Your task to perform on an android device: turn off smart reply in the gmail app Image 0: 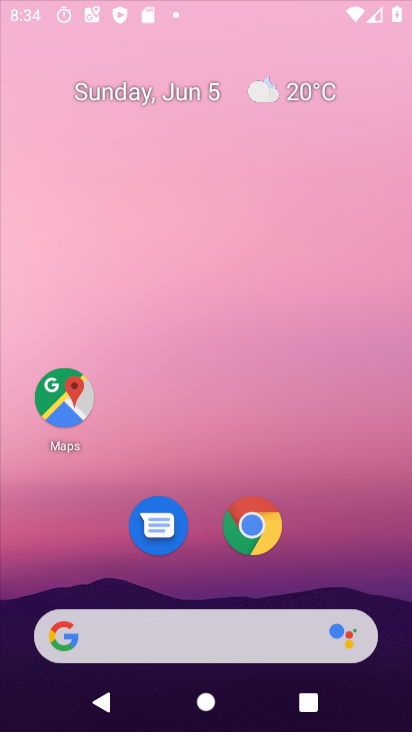
Step 0: drag from (373, 469) to (401, 0)
Your task to perform on an android device: turn off smart reply in the gmail app Image 1: 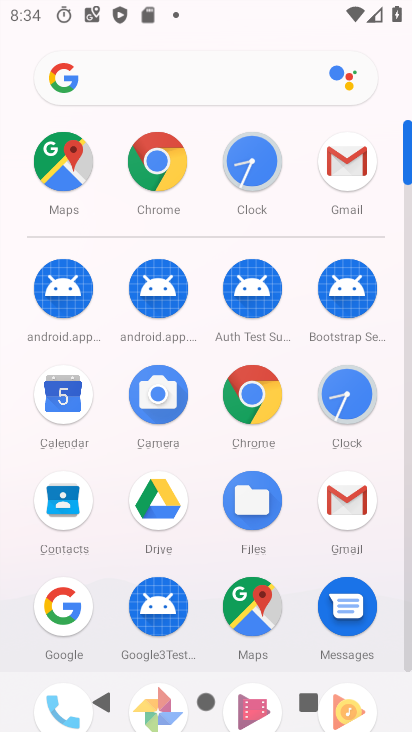
Step 1: click (374, 507)
Your task to perform on an android device: turn off smart reply in the gmail app Image 2: 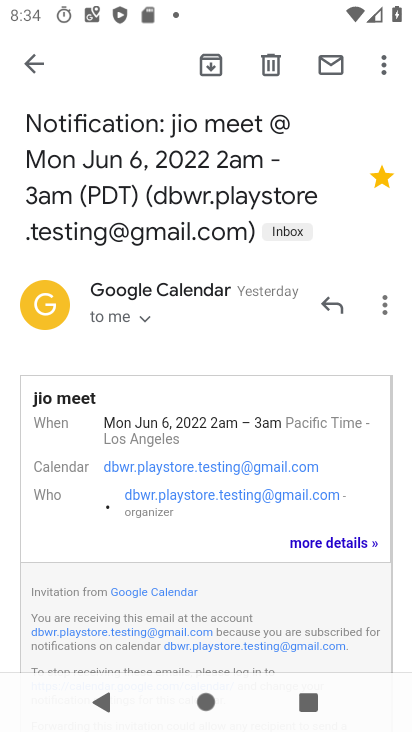
Step 2: click (49, 65)
Your task to perform on an android device: turn off smart reply in the gmail app Image 3: 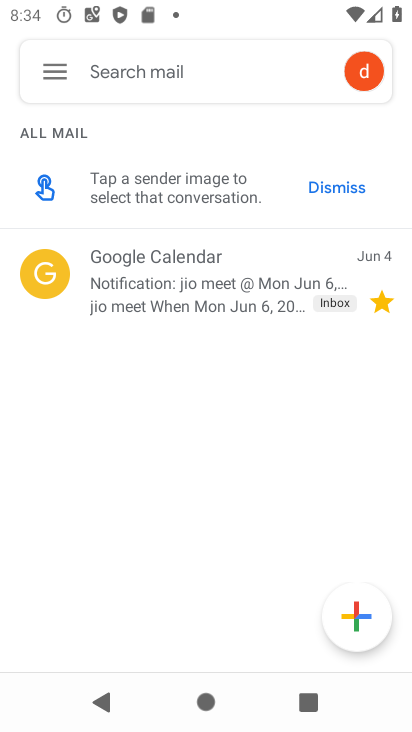
Step 3: click (53, 83)
Your task to perform on an android device: turn off smart reply in the gmail app Image 4: 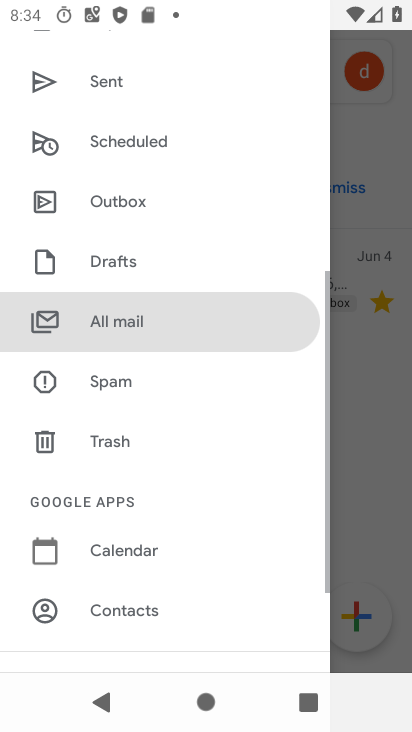
Step 4: drag from (150, 615) to (117, 3)
Your task to perform on an android device: turn off smart reply in the gmail app Image 5: 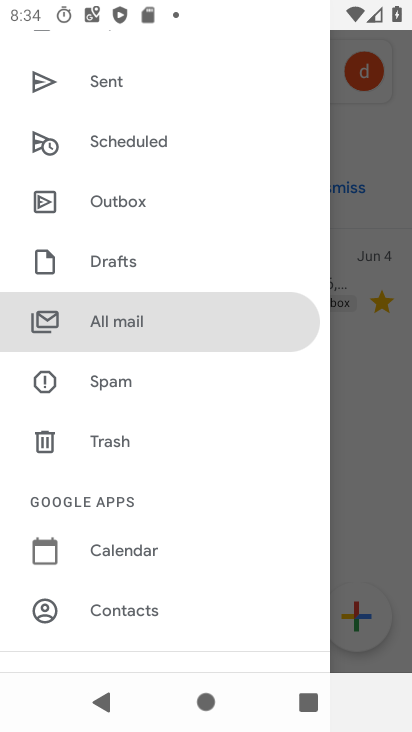
Step 5: drag from (144, 549) to (165, 22)
Your task to perform on an android device: turn off smart reply in the gmail app Image 6: 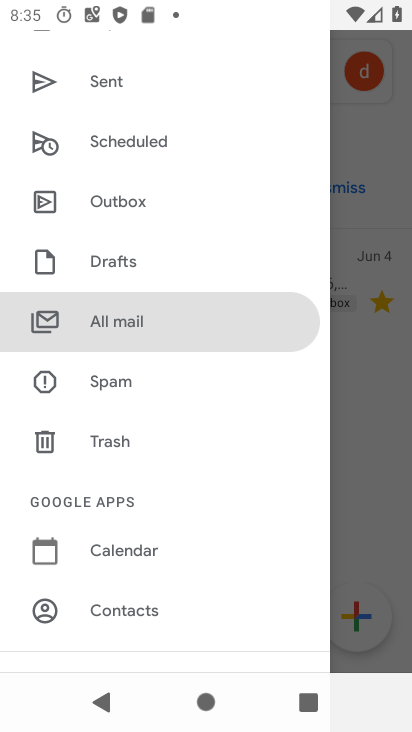
Step 6: drag from (136, 481) to (150, 14)
Your task to perform on an android device: turn off smart reply in the gmail app Image 7: 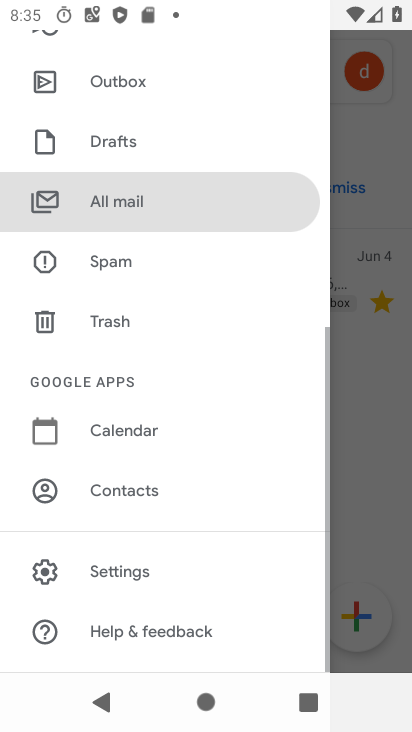
Step 7: click (124, 601)
Your task to perform on an android device: turn off smart reply in the gmail app Image 8: 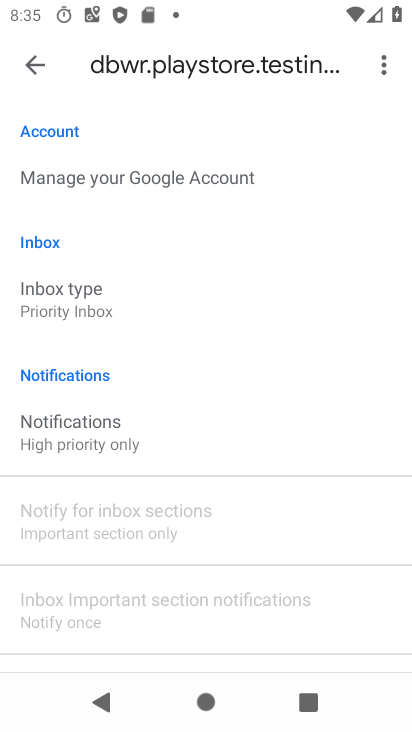
Step 8: drag from (90, 424) to (166, 52)
Your task to perform on an android device: turn off smart reply in the gmail app Image 9: 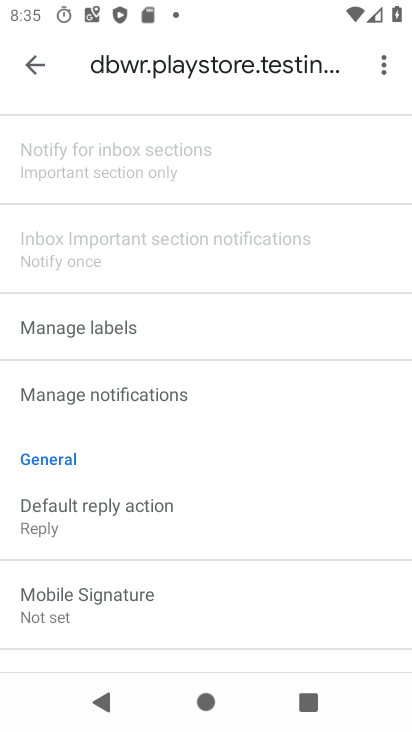
Step 9: drag from (138, 559) to (190, 63)
Your task to perform on an android device: turn off smart reply in the gmail app Image 10: 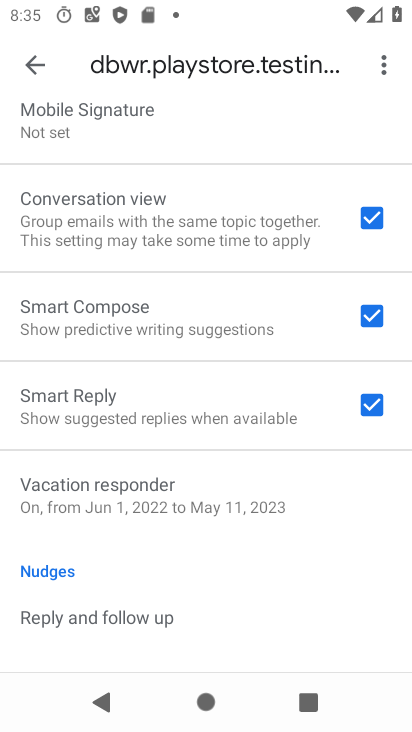
Step 10: click (371, 408)
Your task to perform on an android device: turn off smart reply in the gmail app Image 11: 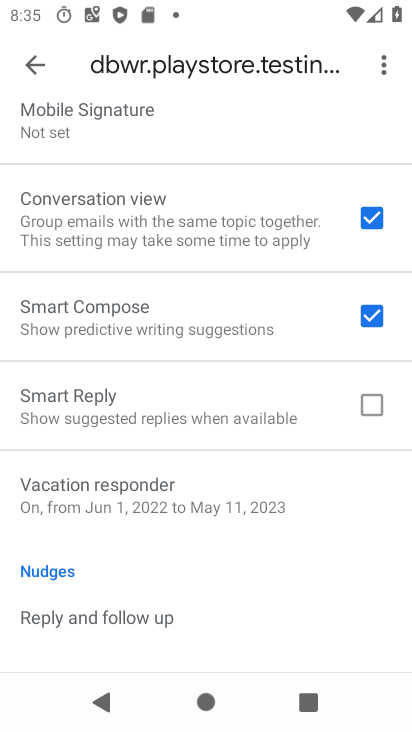
Step 11: task complete